Your task to perform on an android device: turn off improve location accuracy Image 0: 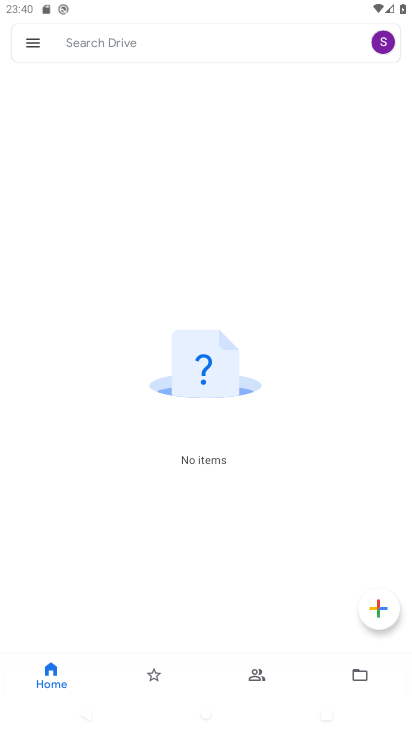
Step 0: press home button
Your task to perform on an android device: turn off improve location accuracy Image 1: 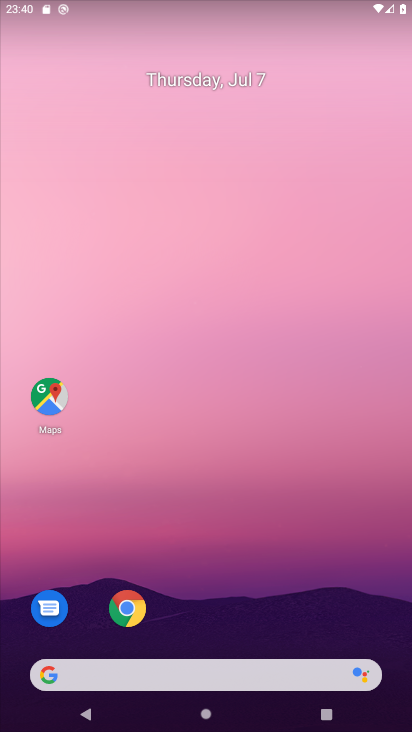
Step 1: drag from (234, 704) to (96, 0)
Your task to perform on an android device: turn off improve location accuracy Image 2: 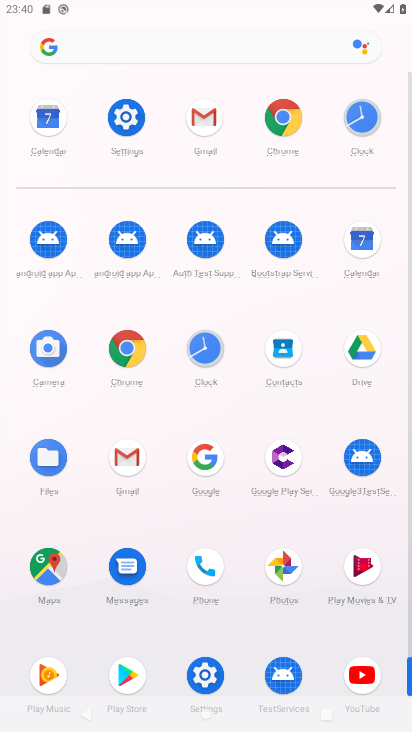
Step 2: click (126, 124)
Your task to perform on an android device: turn off improve location accuracy Image 3: 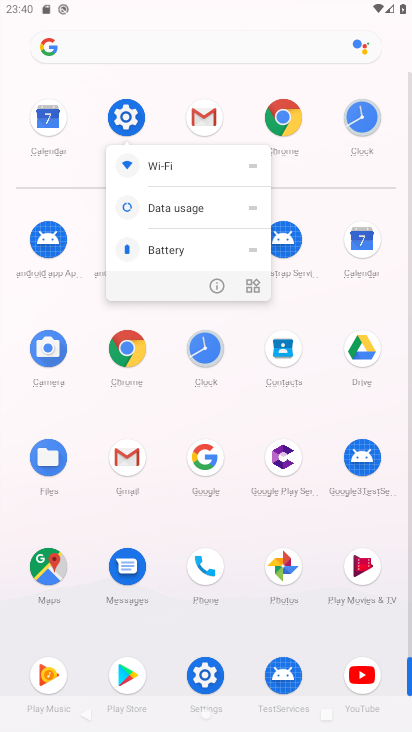
Step 3: click (278, 115)
Your task to perform on an android device: turn off improve location accuracy Image 4: 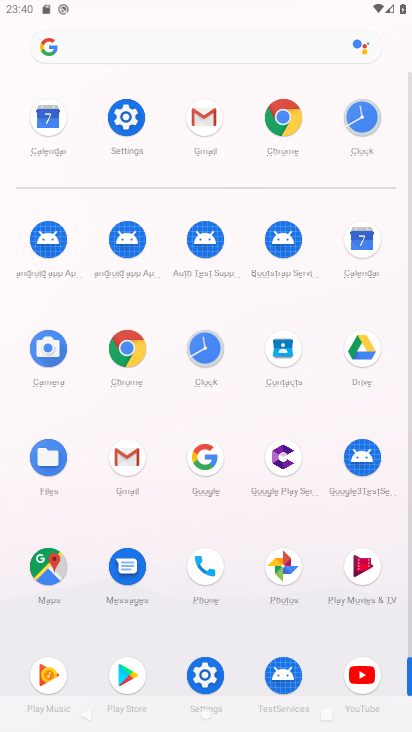
Step 4: click (278, 115)
Your task to perform on an android device: turn off improve location accuracy Image 5: 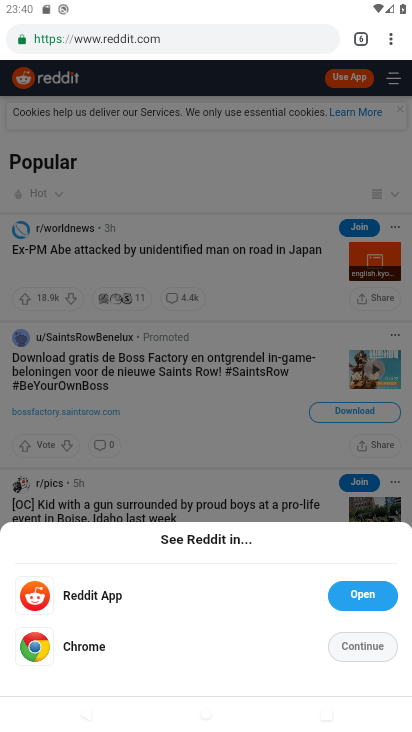
Step 5: click (391, 36)
Your task to perform on an android device: turn off improve location accuracy Image 6: 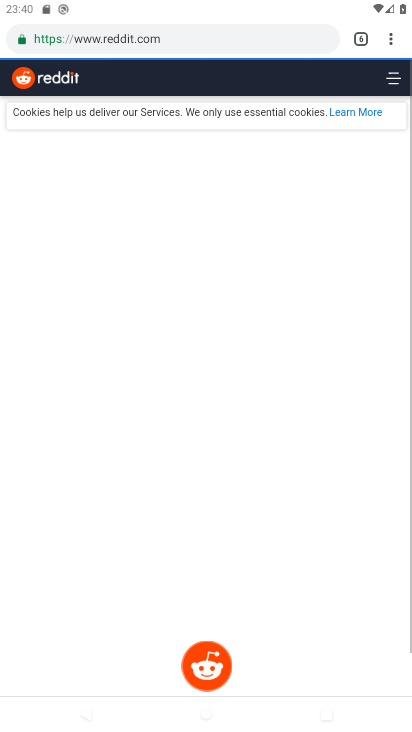
Step 6: click (395, 30)
Your task to perform on an android device: turn off improve location accuracy Image 7: 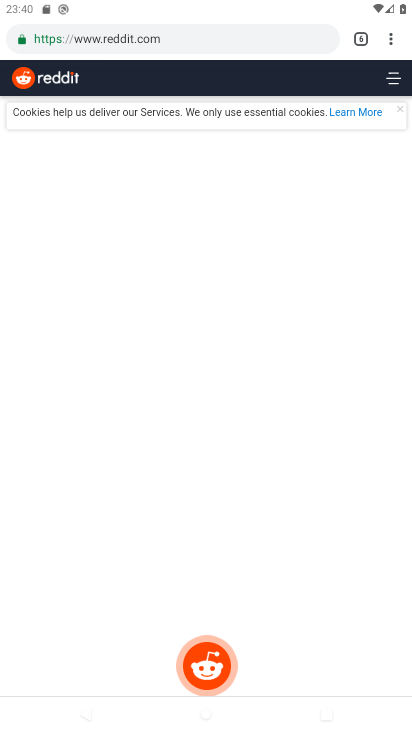
Step 7: click (395, 30)
Your task to perform on an android device: turn off improve location accuracy Image 8: 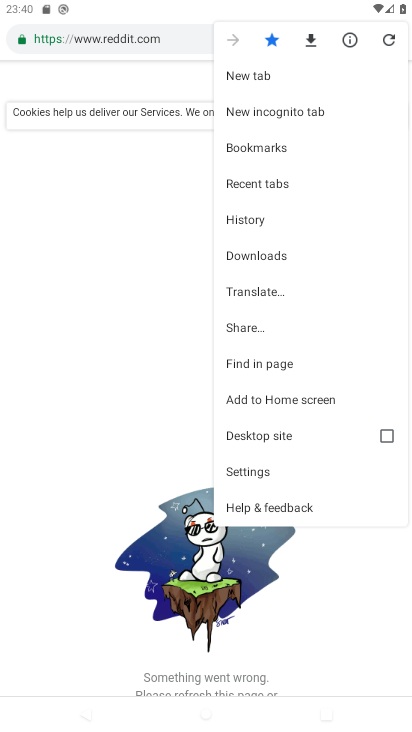
Step 8: click (271, 474)
Your task to perform on an android device: turn off improve location accuracy Image 9: 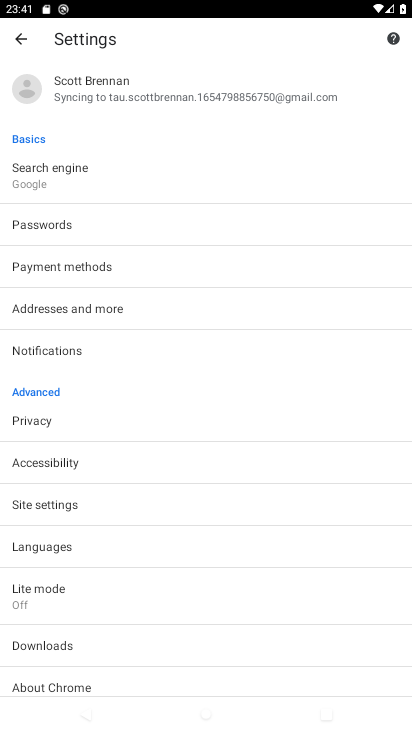
Step 9: drag from (148, 456) to (188, 235)
Your task to perform on an android device: turn off improve location accuracy Image 10: 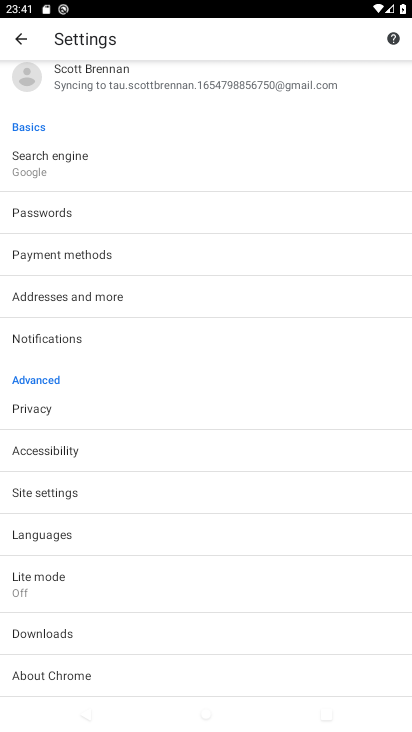
Step 10: drag from (228, 590) to (219, 268)
Your task to perform on an android device: turn off improve location accuracy Image 11: 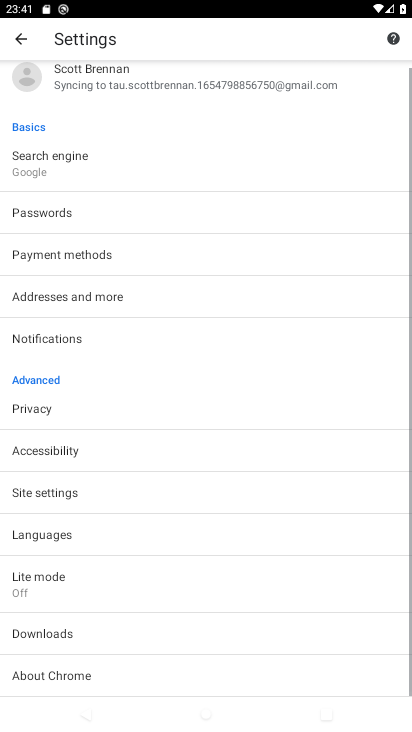
Step 11: drag from (215, 681) to (218, 294)
Your task to perform on an android device: turn off improve location accuracy Image 12: 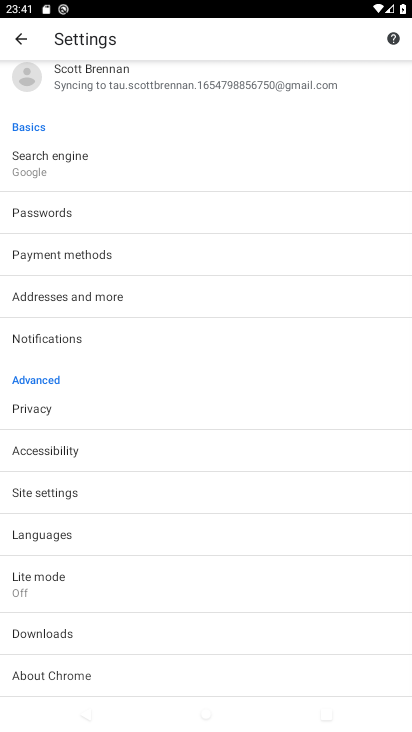
Step 12: drag from (209, 625) to (216, 230)
Your task to perform on an android device: turn off improve location accuracy Image 13: 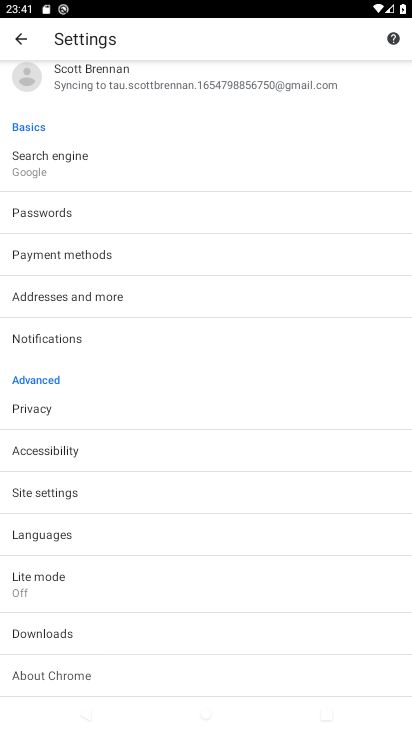
Step 13: drag from (159, 507) to (171, 230)
Your task to perform on an android device: turn off improve location accuracy Image 14: 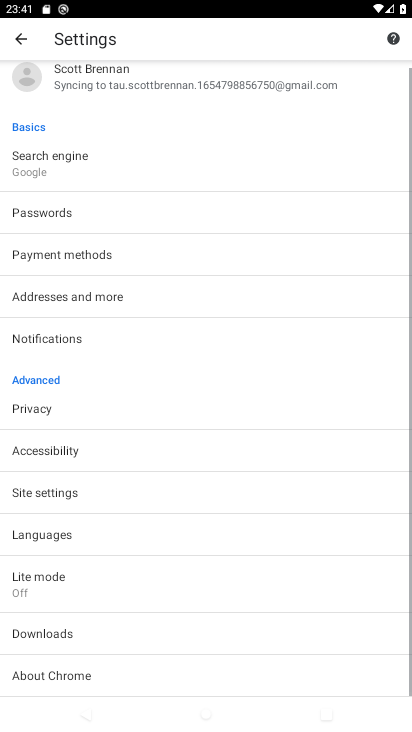
Step 14: drag from (103, 440) to (103, 369)
Your task to perform on an android device: turn off improve location accuracy Image 15: 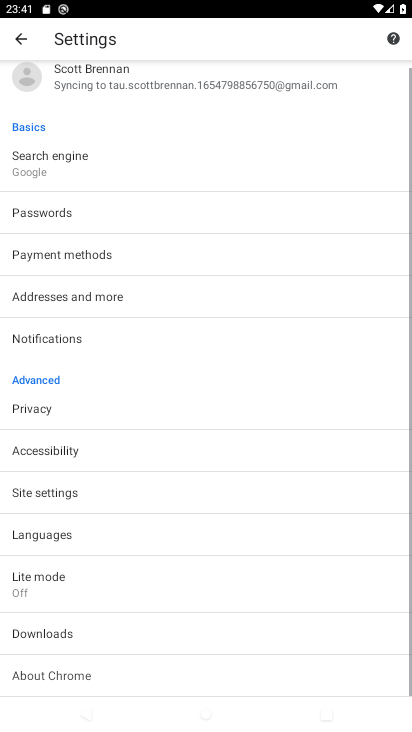
Step 15: drag from (43, 607) to (87, 416)
Your task to perform on an android device: turn off improve location accuracy Image 16: 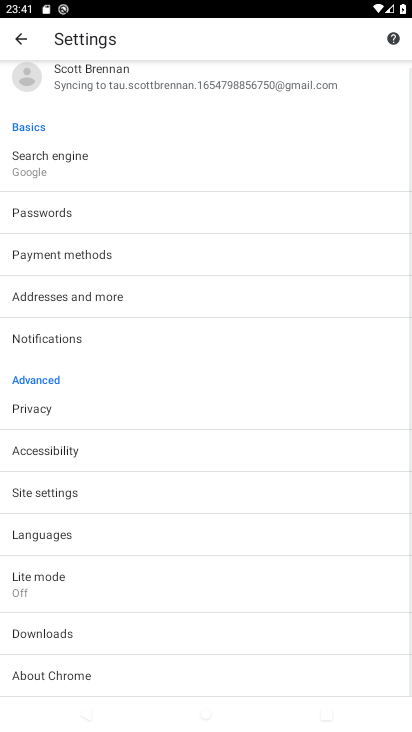
Step 16: press home button
Your task to perform on an android device: turn off improve location accuracy Image 17: 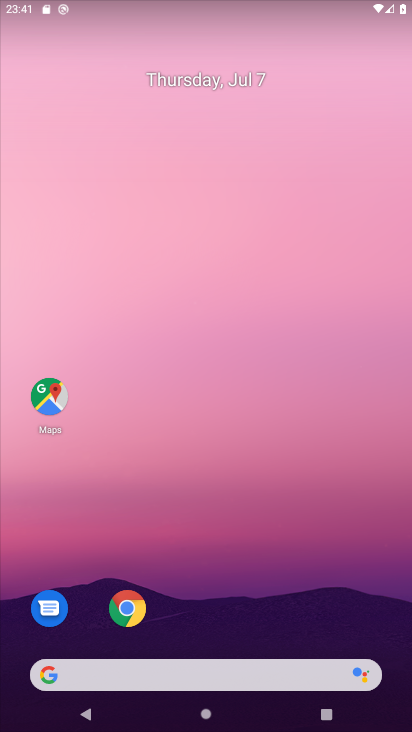
Step 17: drag from (218, 577) to (205, 104)
Your task to perform on an android device: turn off improve location accuracy Image 18: 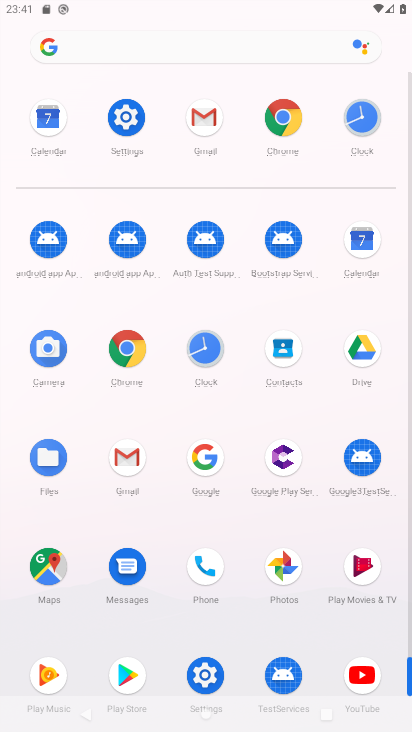
Step 18: click (123, 119)
Your task to perform on an android device: turn off improve location accuracy Image 19: 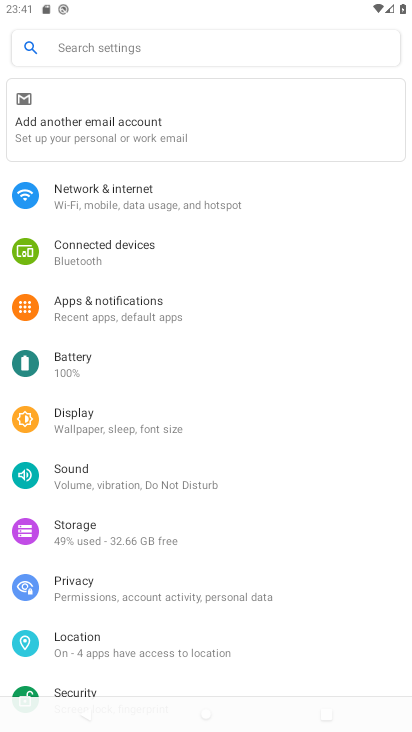
Step 19: drag from (160, 652) to (162, 337)
Your task to perform on an android device: turn off improve location accuracy Image 20: 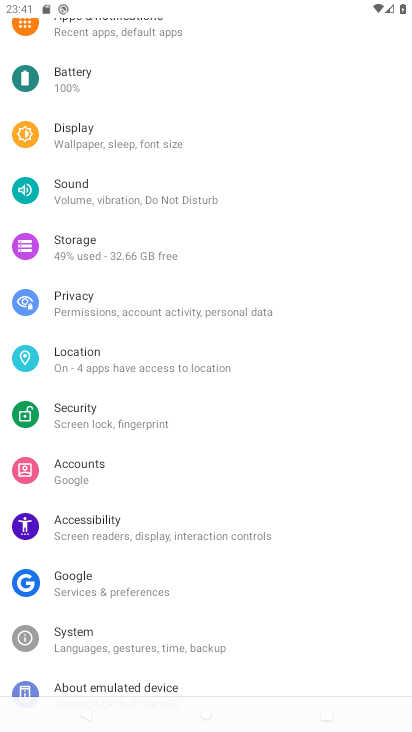
Step 20: click (118, 365)
Your task to perform on an android device: turn off improve location accuracy Image 21: 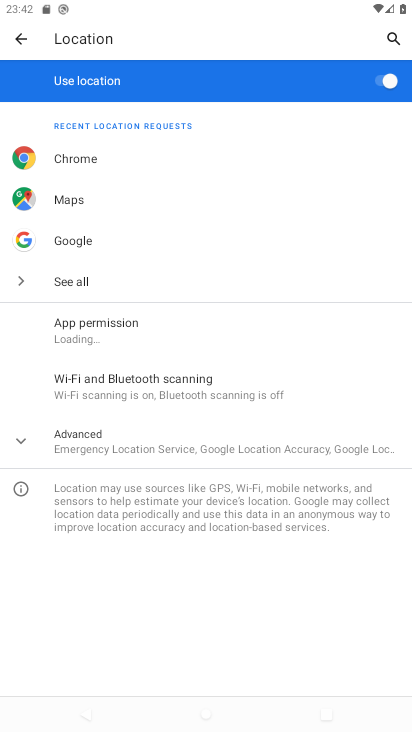
Step 21: click (157, 438)
Your task to perform on an android device: turn off improve location accuracy Image 22: 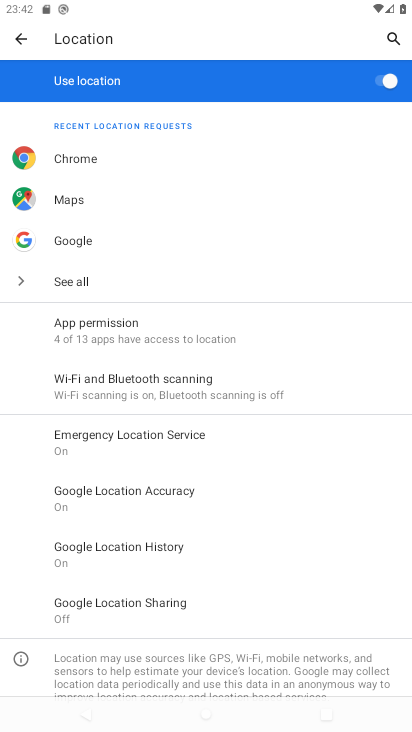
Step 22: click (179, 496)
Your task to perform on an android device: turn off improve location accuracy Image 23: 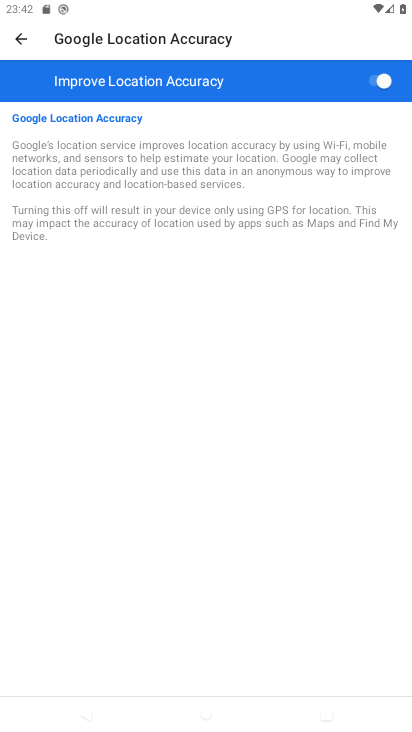
Step 23: click (368, 83)
Your task to perform on an android device: turn off improve location accuracy Image 24: 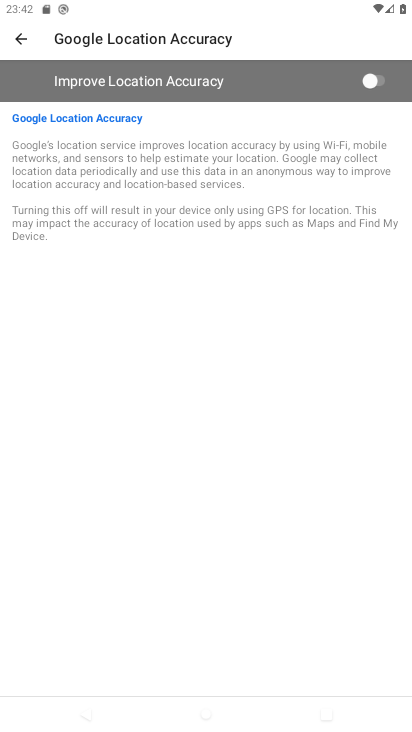
Step 24: task complete